Your task to perform on an android device: turn on location history Image 0: 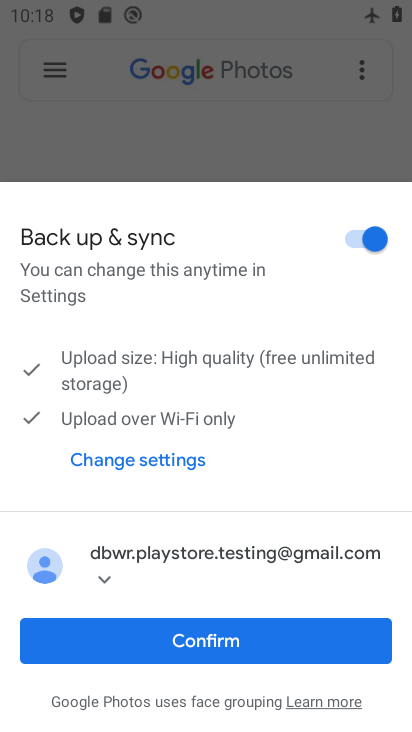
Step 0: press home button
Your task to perform on an android device: turn on location history Image 1: 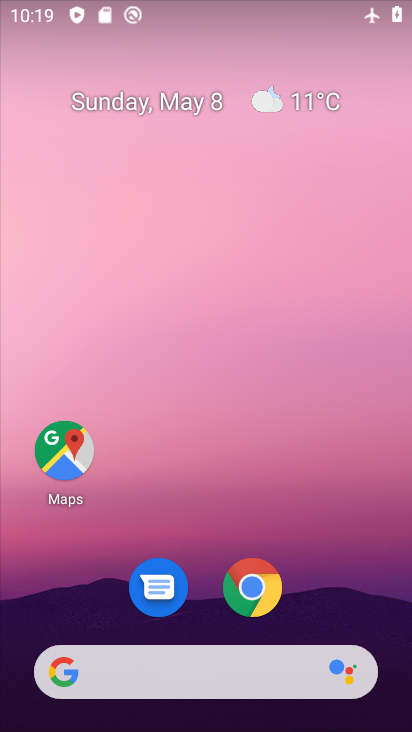
Step 1: drag from (162, 659) to (195, 312)
Your task to perform on an android device: turn on location history Image 2: 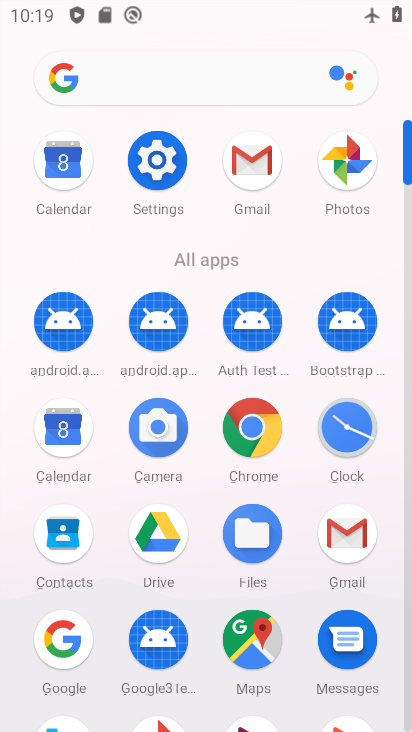
Step 2: click (168, 177)
Your task to perform on an android device: turn on location history Image 3: 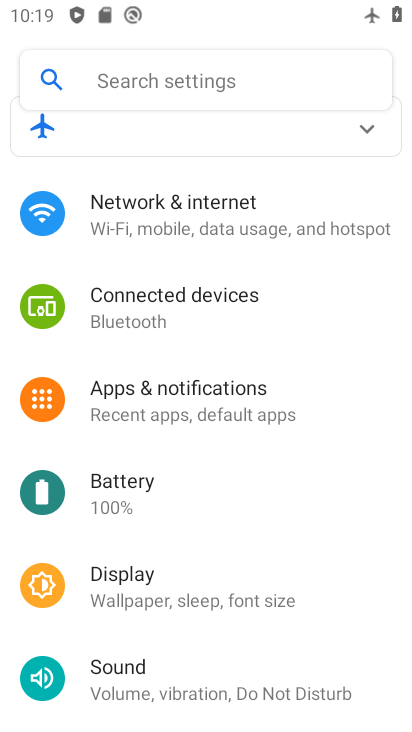
Step 3: drag from (190, 640) to (201, 308)
Your task to perform on an android device: turn on location history Image 4: 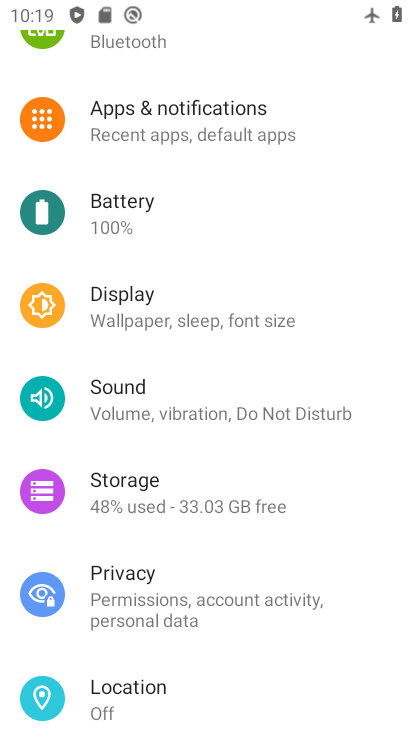
Step 4: click (164, 684)
Your task to perform on an android device: turn on location history Image 5: 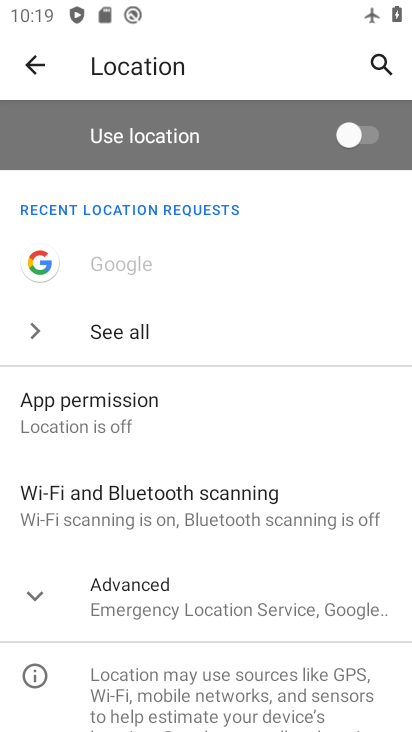
Step 5: click (356, 139)
Your task to perform on an android device: turn on location history Image 6: 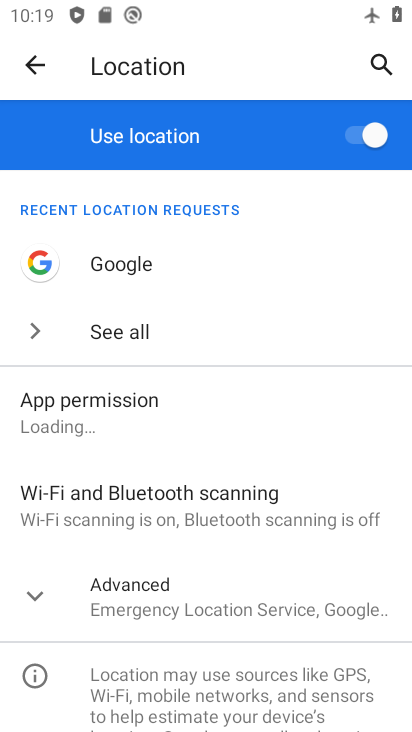
Step 6: click (179, 578)
Your task to perform on an android device: turn on location history Image 7: 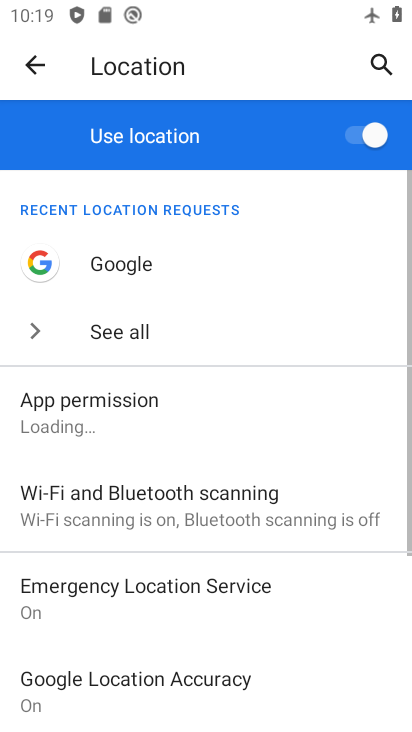
Step 7: drag from (136, 641) to (190, 381)
Your task to perform on an android device: turn on location history Image 8: 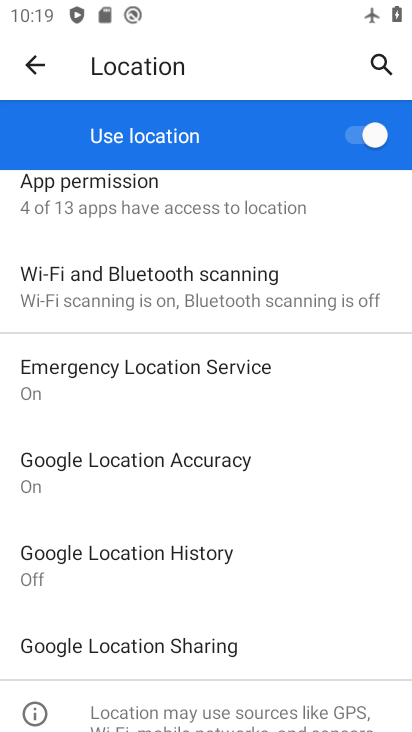
Step 8: click (136, 552)
Your task to perform on an android device: turn on location history Image 9: 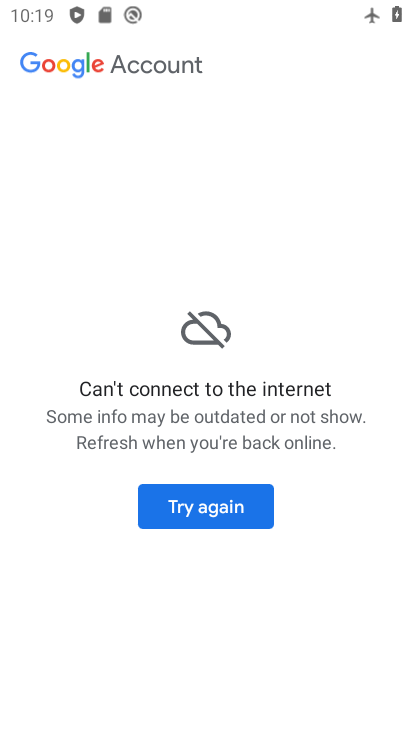
Step 9: click (238, 522)
Your task to perform on an android device: turn on location history Image 10: 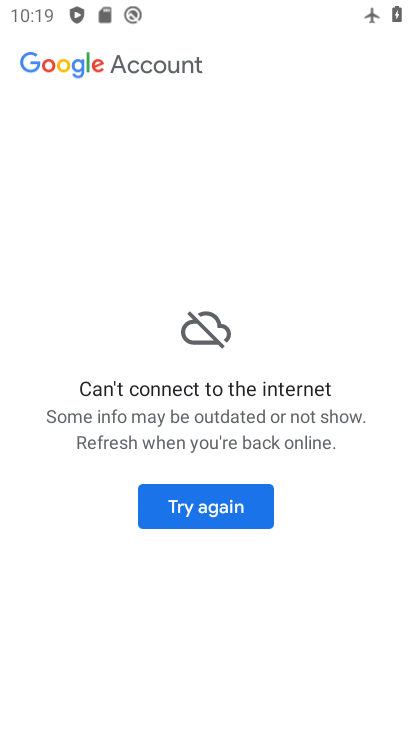
Step 10: task complete